Your task to perform on an android device: Go to Android settings Image 0: 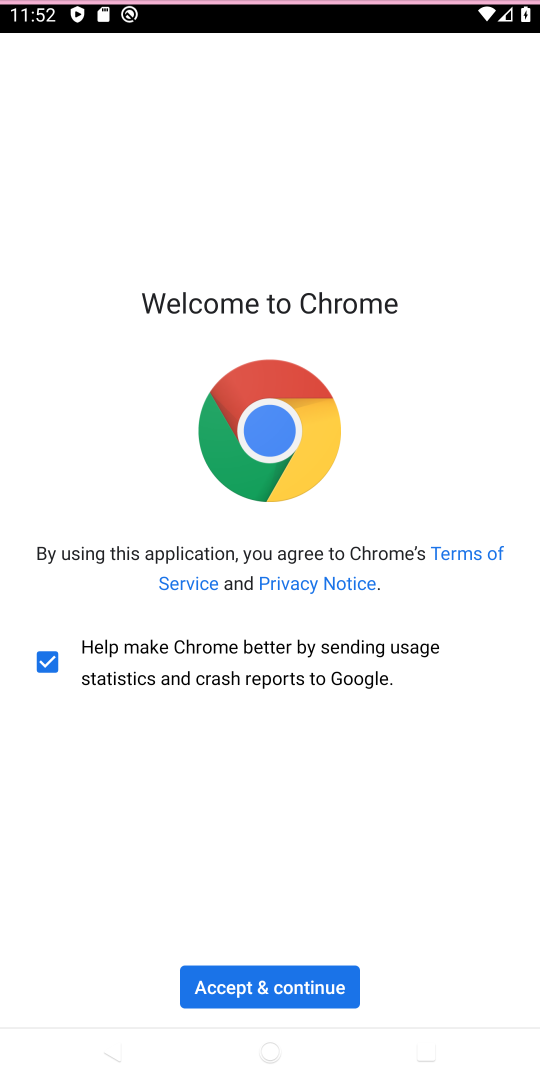
Step 0: press home button
Your task to perform on an android device: Go to Android settings Image 1: 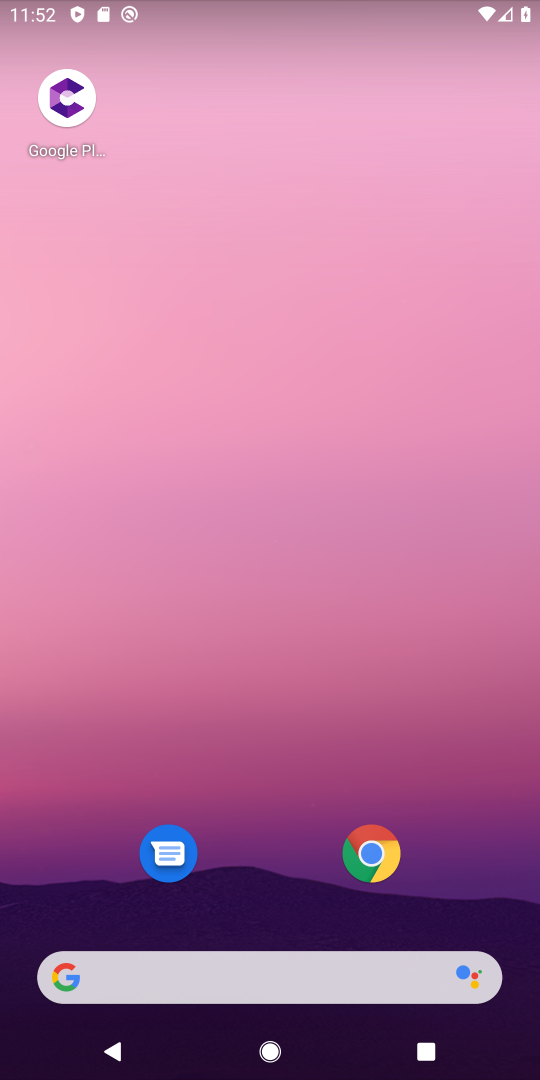
Step 1: press home button
Your task to perform on an android device: Go to Android settings Image 2: 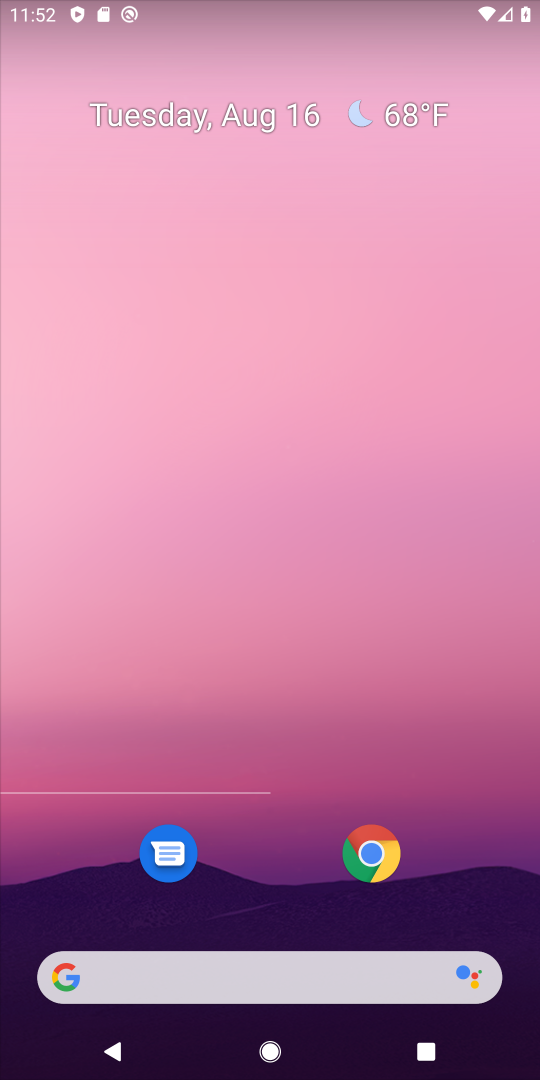
Step 2: drag from (242, 893) to (172, 346)
Your task to perform on an android device: Go to Android settings Image 3: 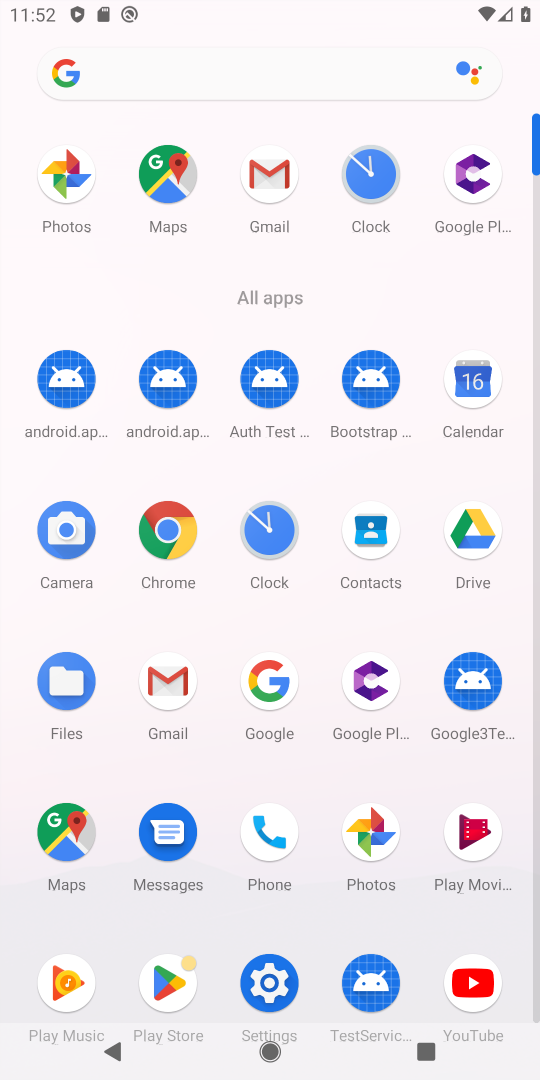
Step 3: click (267, 993)
Your task to perform on an android device: Go to Android settings Image 4: 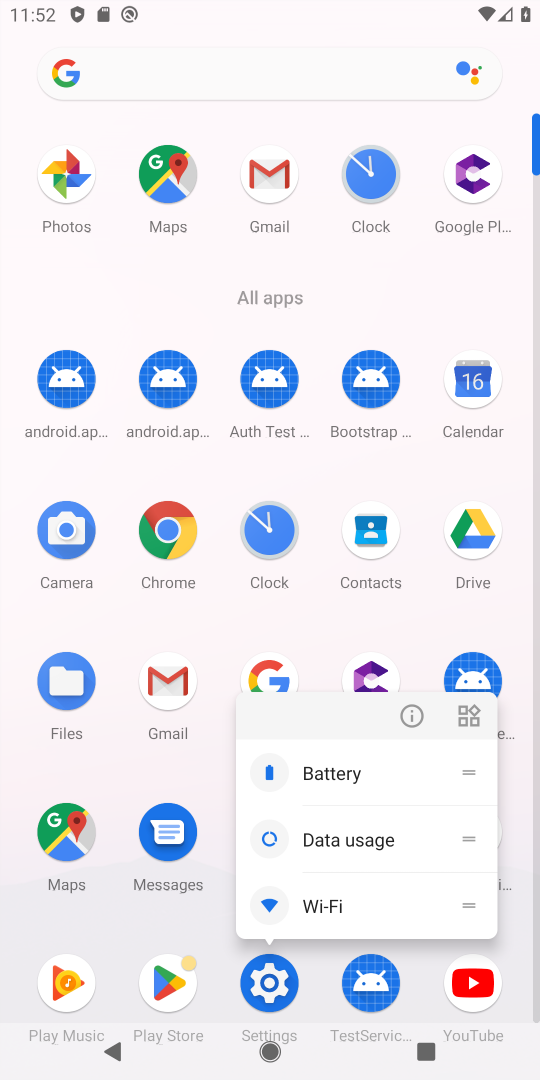
Step 4: click (266, 1006)
Your task to perform on an android device: Go to Android settings Image 5: 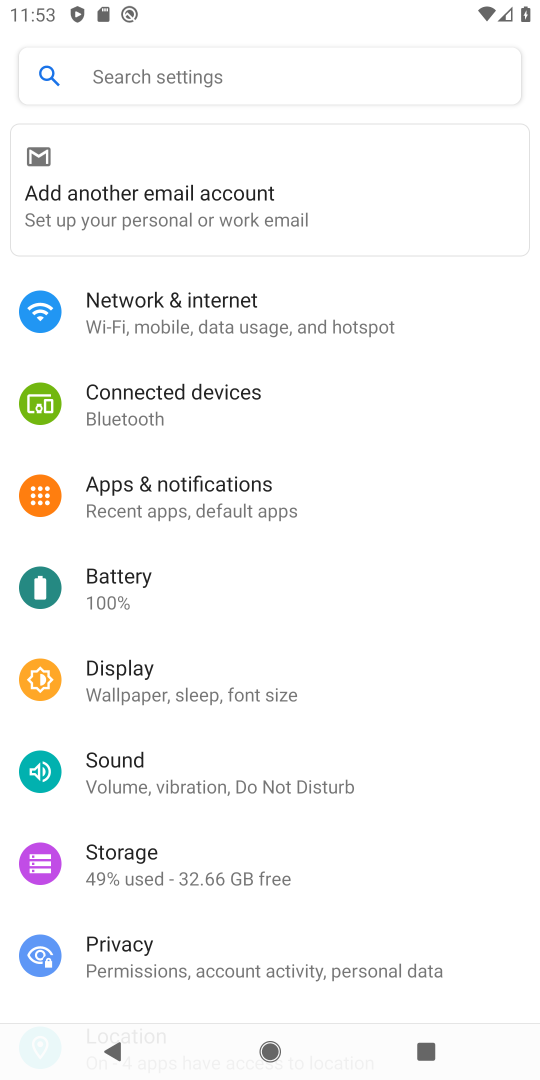
Step 5: task complete